Your task to perform on an android device: Open Reddit.com Image 0: 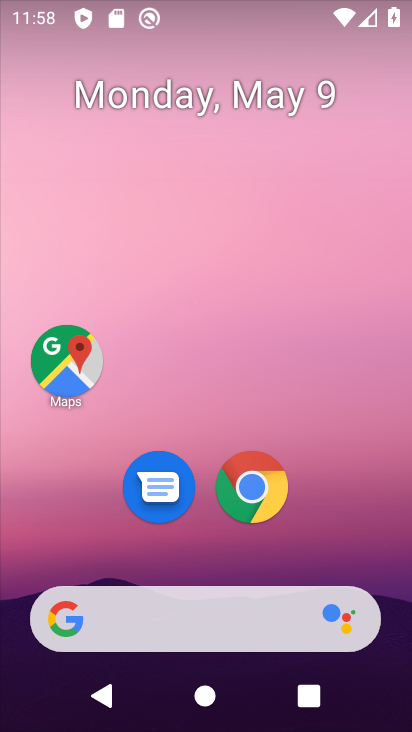
Step 0: click (241, 476)
Your task to perform on an android device: Open Reddit.com Image 1: 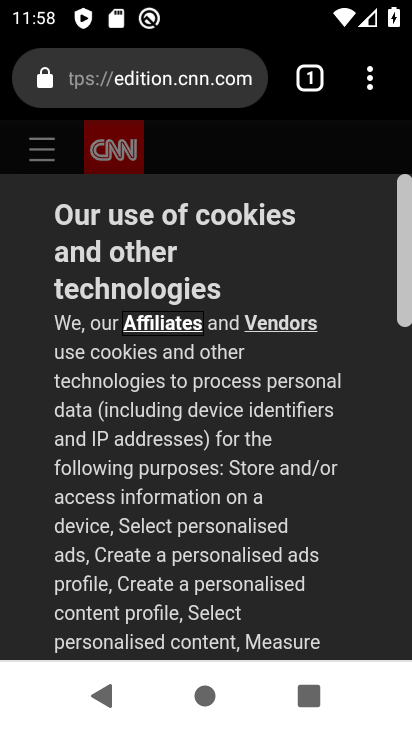
Step 1: click (209, 94)
Your task to perform on an android device: Open Reddit.com Image 2: 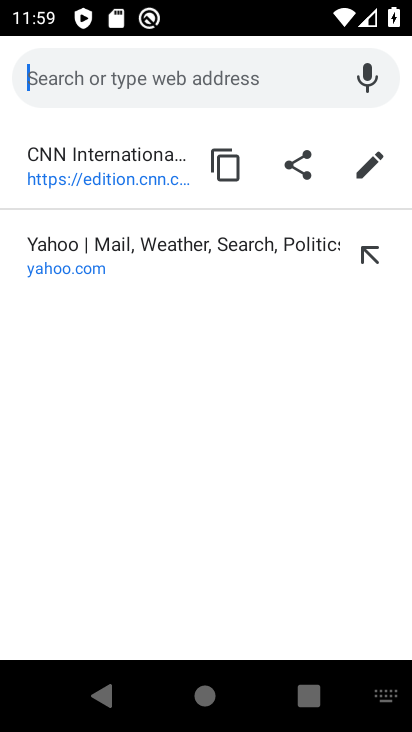
Step 2: type "reddit.com"
Your task to perform on an android device: Open Reddit.com Image 3: 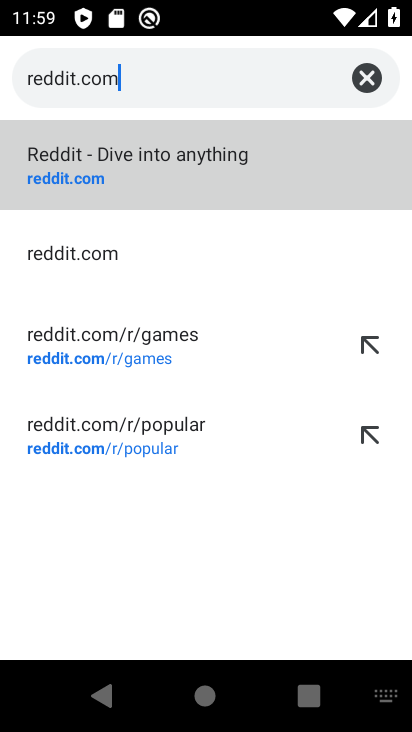
Step 3: click (275, 176)
Your task to perform on an android device: Open Reddit.com Image 4: 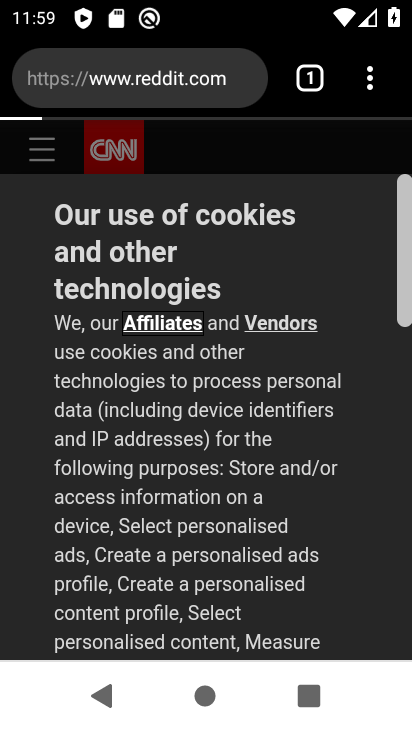
Step 4: task complete